Your task to perform on an android device: What's the weather going to be this weekend? Image 0: 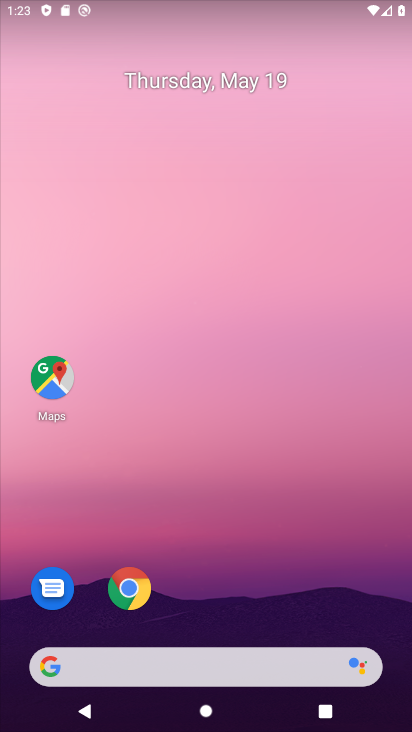
Step 0: click (123, 591)
Your task to perform on an android device: What's the weather going to be this weekend? Image 1: 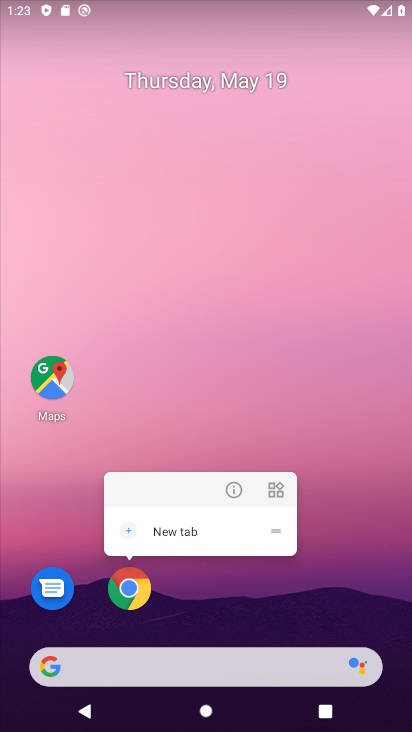
Step 1: click (120, 587)
Your task to perform on an android device: What's the weather going to be this weekend? Image 2: 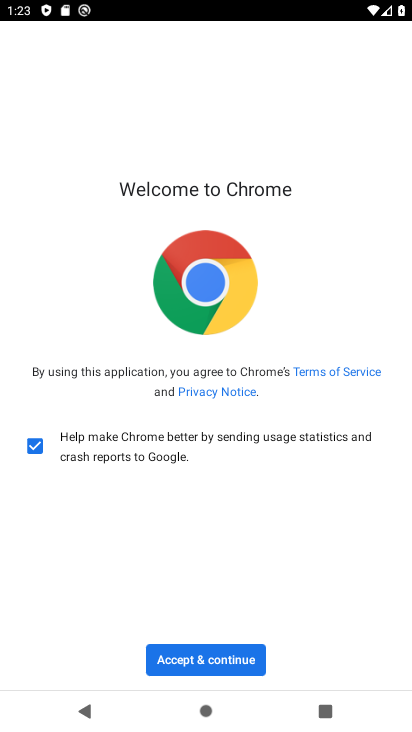
Step 2: click (228, 649)
Your task to perform on an android device: What's the weather going to be this weekend? Image 3: 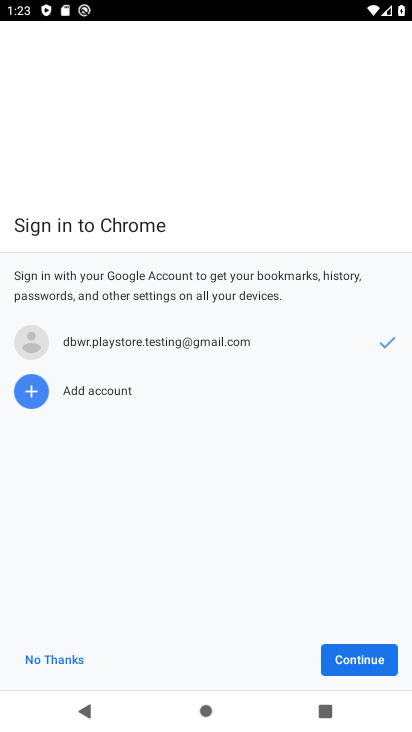
Step 3: click (367, 666)
Your task to perform on an android device: What's the weather going to be this weekend? Image 4: 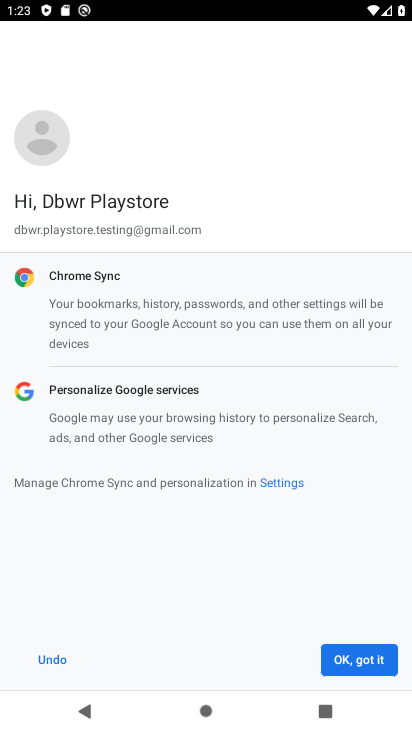
Step 4: click (362, 651)
Your task to perform on an android device: What's the weather going to be this weekend? Image 5: 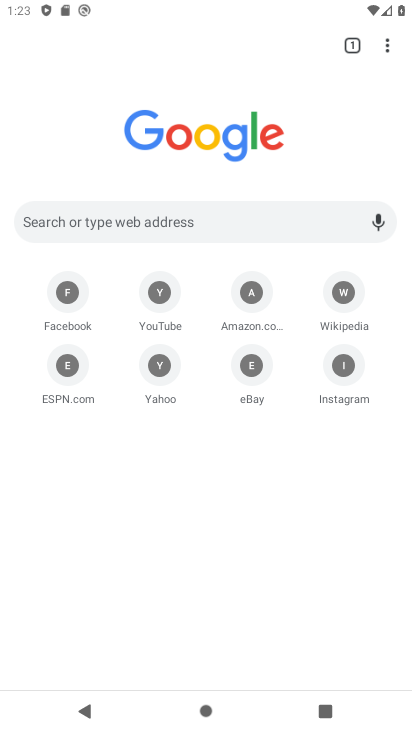
Step 5: click (228, 38)
Your task to perform on an android device: What's the weather going to be this weekend? Image 6: 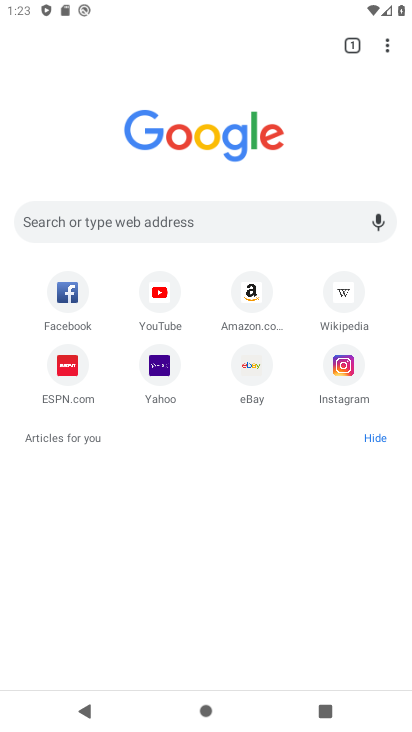
Step 6: click (259, 229)
Your task to perform on an android device: What's the weather going to be this weekend? Image 7: 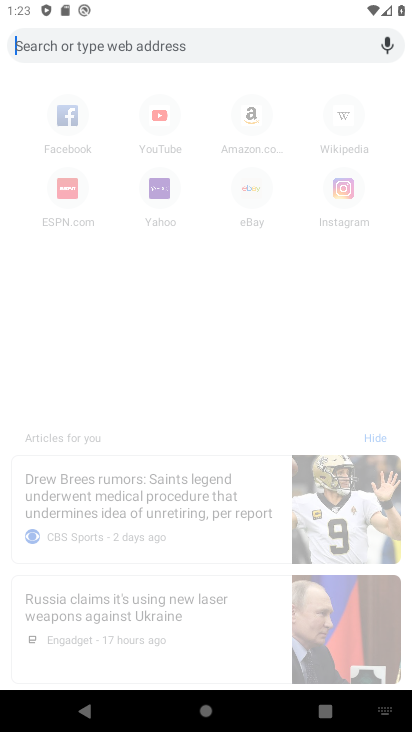
Step 7: type "weather"
Your task to perform on an android device: What's the weather going to be this weekend? Image 8: 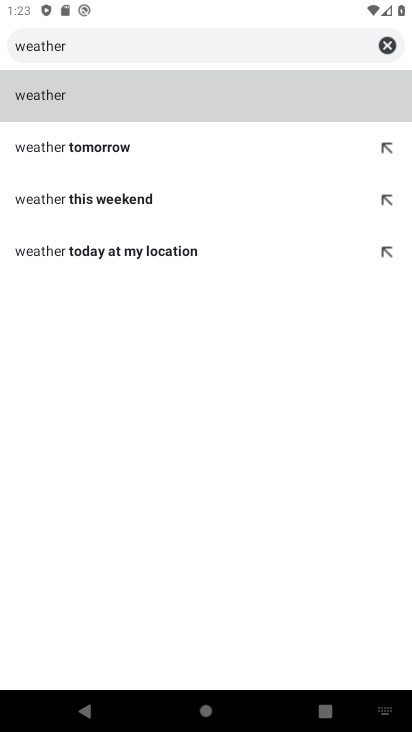
Step 8: click (61, 88)
Your task to perform on an android device: What's the weather going to be this weekend? Image 9: 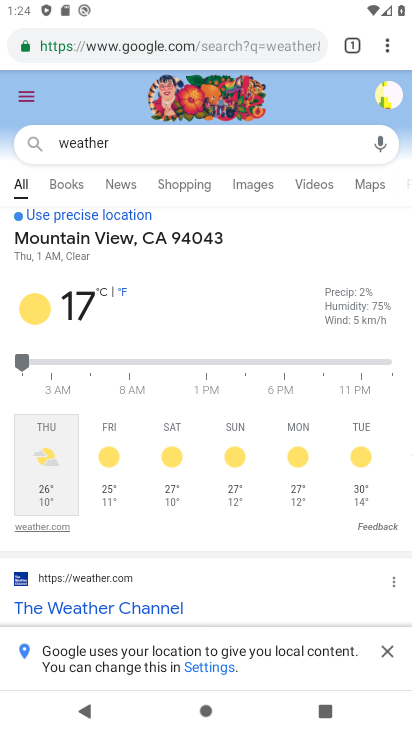
Step 9: drag from (273, 391) to (243, 87)
Your task to perform on an android device: What's the weather going to be this weekend? Image 10: 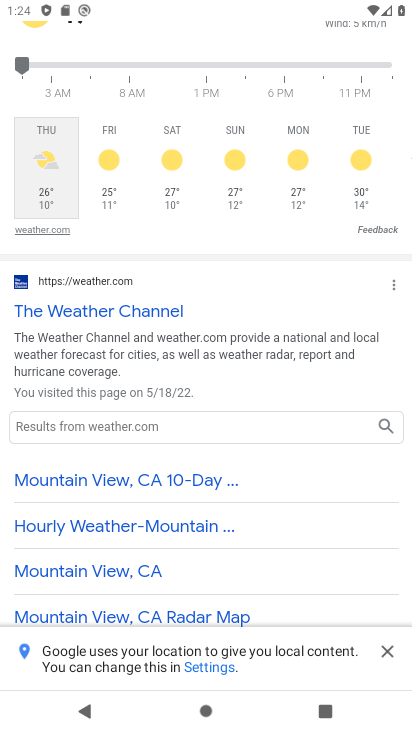
Step 10: click (182, 165)
Your task to perform on an android device: What's the weather going to be this weekend? Image 11: 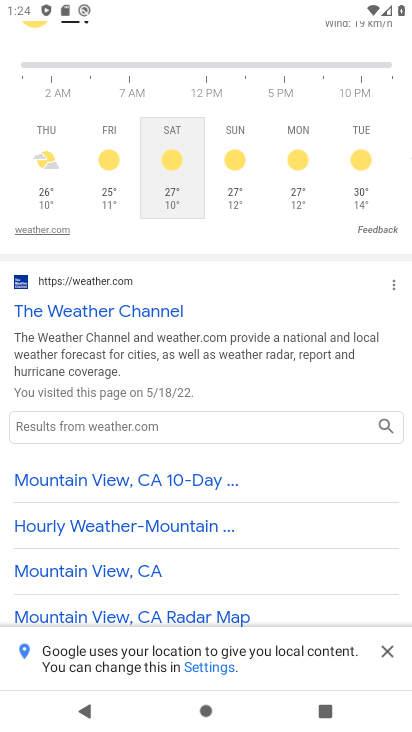
Step 11: task complete